Your task to perform on an android device: Open Wikipedia Image 0: 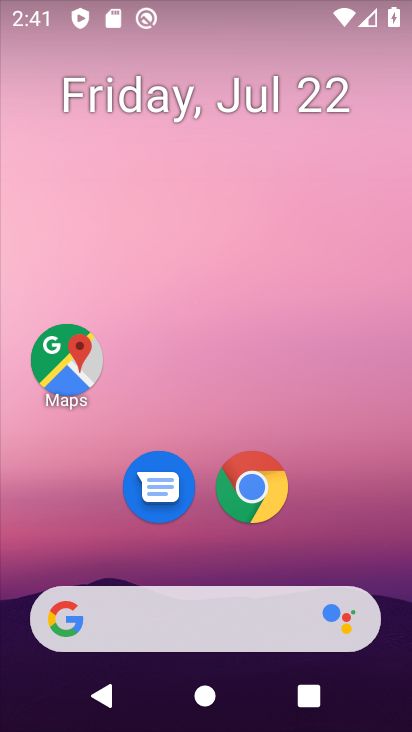
Step 0: click (244, 482)
Your task to perform on an android device: Open Wikipedia Image 1: 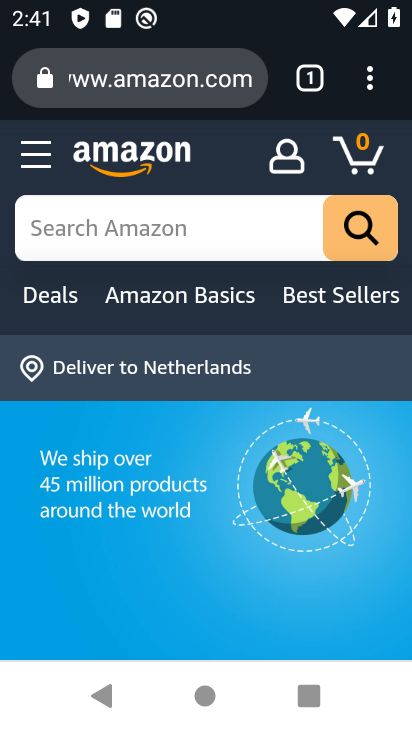
Step 1: click (308, 76)
Your task to perform on an android device: Open Wikipedia Image 2: 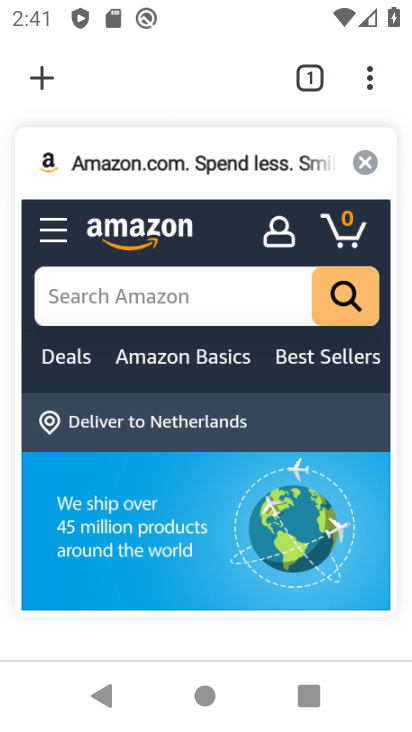
Step 2: click (42, 77)
Your task to perform on an android device: Open Wikipedia Image 3: 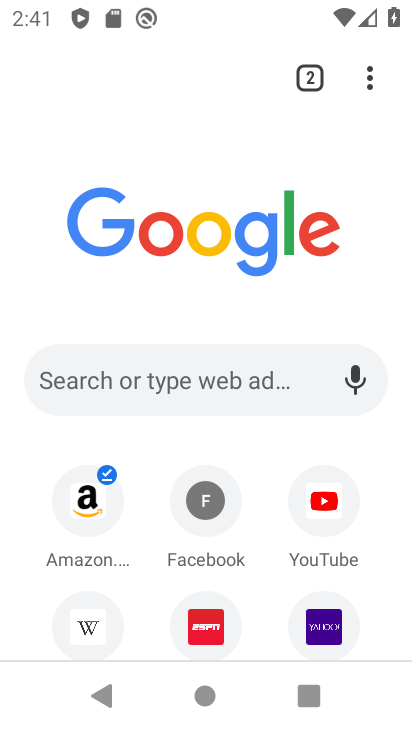
Step 3: click (81, 630)
Your task to perform on an android device: Open Wikipedia Image 4: 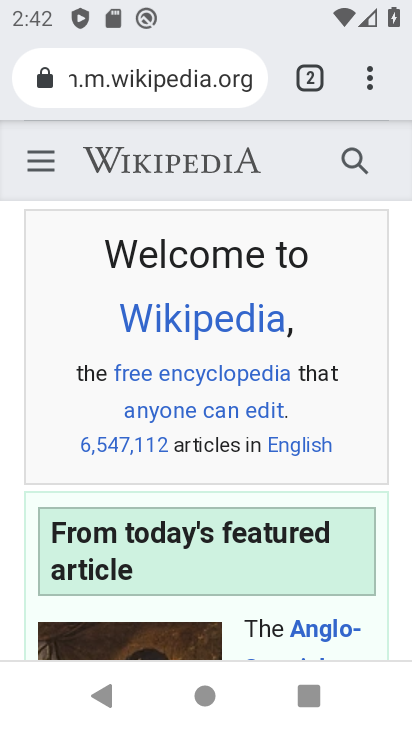
Step 4: task complete